Your task to perform on an android device: turn on the 12-hour format for clock Image 0: 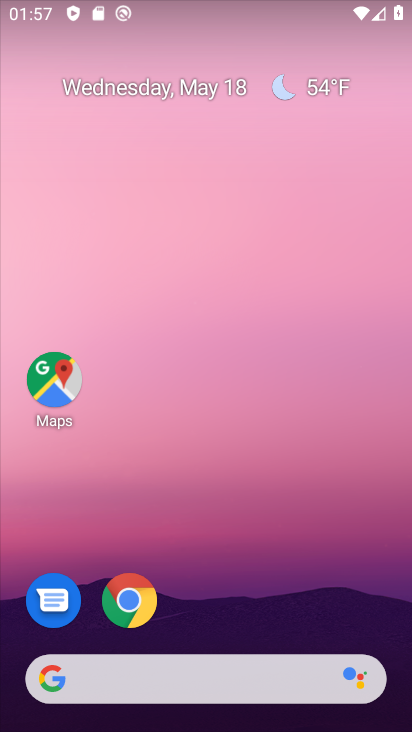
Step 0: drag from (201, 659) to (262, 415)
Your task to perform on an android device: turn on the 12-hour format for clock Image 1: 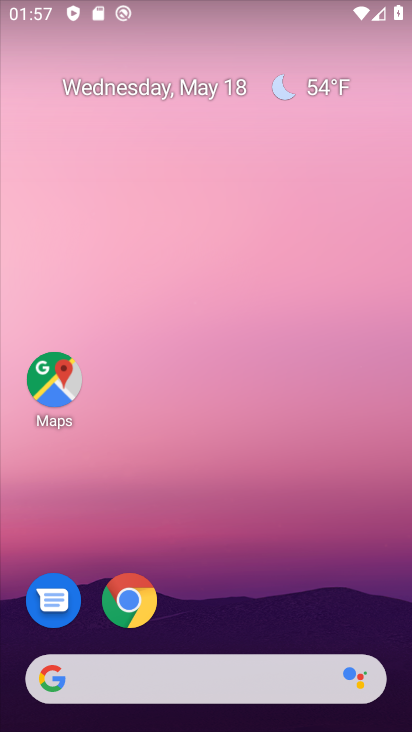
Step 1: drag from (247, 656) to (233, 171)
Your task to perform on an android device: turn on the 12-hour format for clock Image 2: 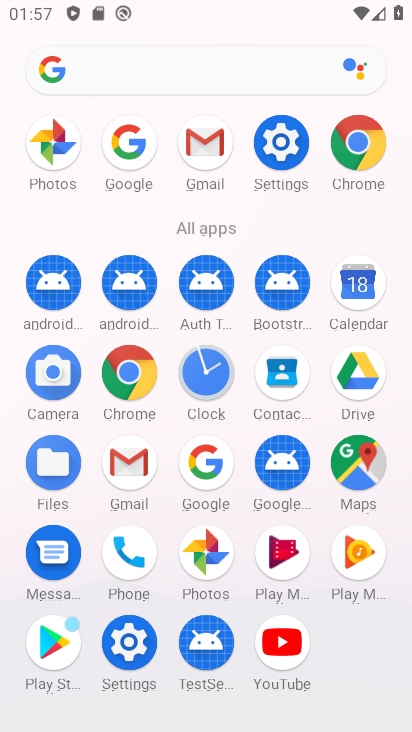
Step 2: click (194, 374)
Your task to perform on an android device: turn on the 12-hour format for clock Image 3: 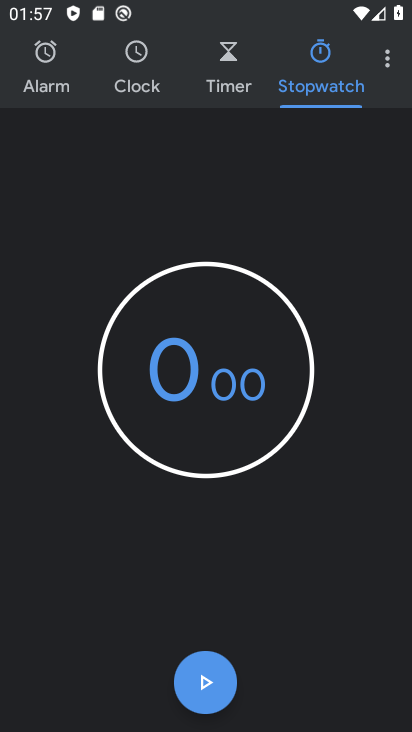
Step 3: click (391, 56)
Your task to perform on an android device: turn on the 12-hour format for clock Image 4: 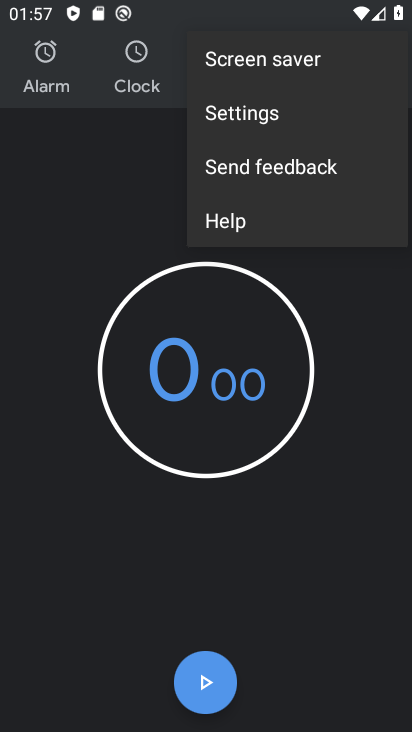
Step 4: click (237, 119)
Your task to perform on an android device: turn on the 12-hour format for clock Image 5: 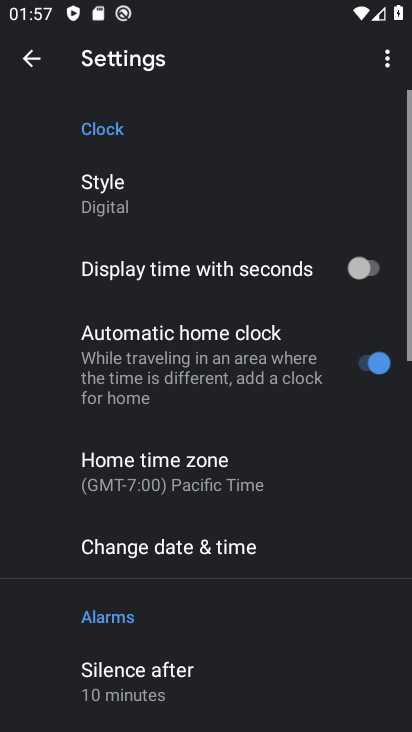
Step 5: drag from (225, 693) to (267, 295)
Your task to perform on an android device: turn on the 12-hour format for clock Image 6: 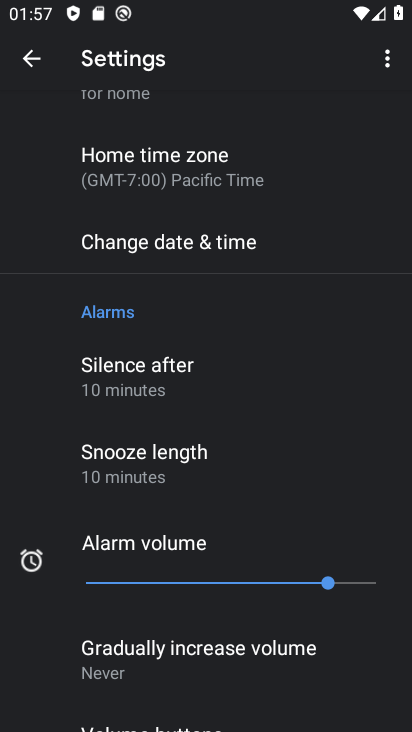
Step 6: drag from (150, 671) to (203, 405)
Your task to perform on an android device: turn on the 12-hour format for clock Image 7: 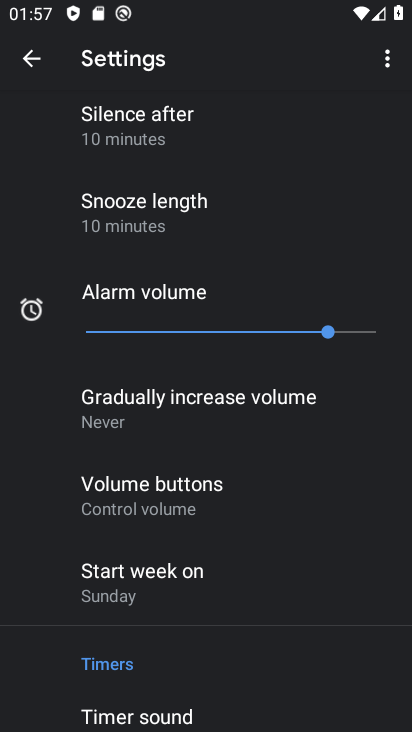
Step 7: drag from (275, 85) to (294, 485)
Your task to perform on an android device: turn on the 12-hour format for clock Image 8: 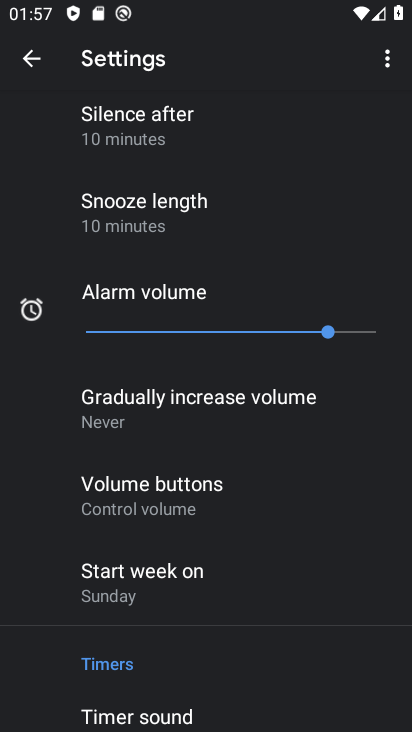
Step 8: drag from (199, 149) to (219, 531)
Your task to perform on an android device: turn on the 12-hour format for clock Image 9: 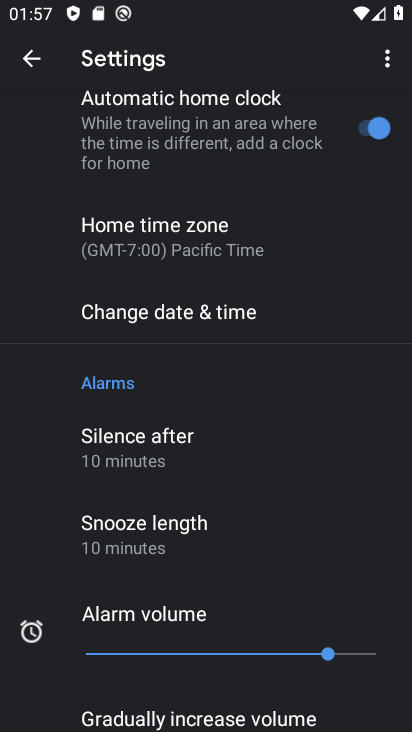
Step 9: click (124, 320)
Your task to perform on an android device: turn on the 12-hour format for clock Image 10: 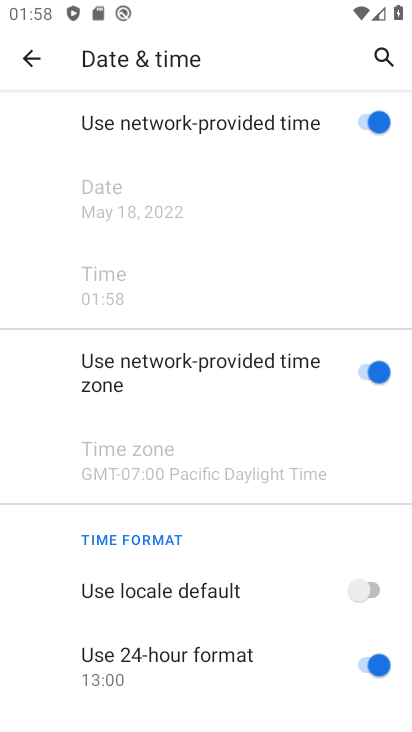
Step 10: task complete